Your task to perform on an android device: Add "logitech g502" to the cart on amazon.com, then select checkout. Image 0: 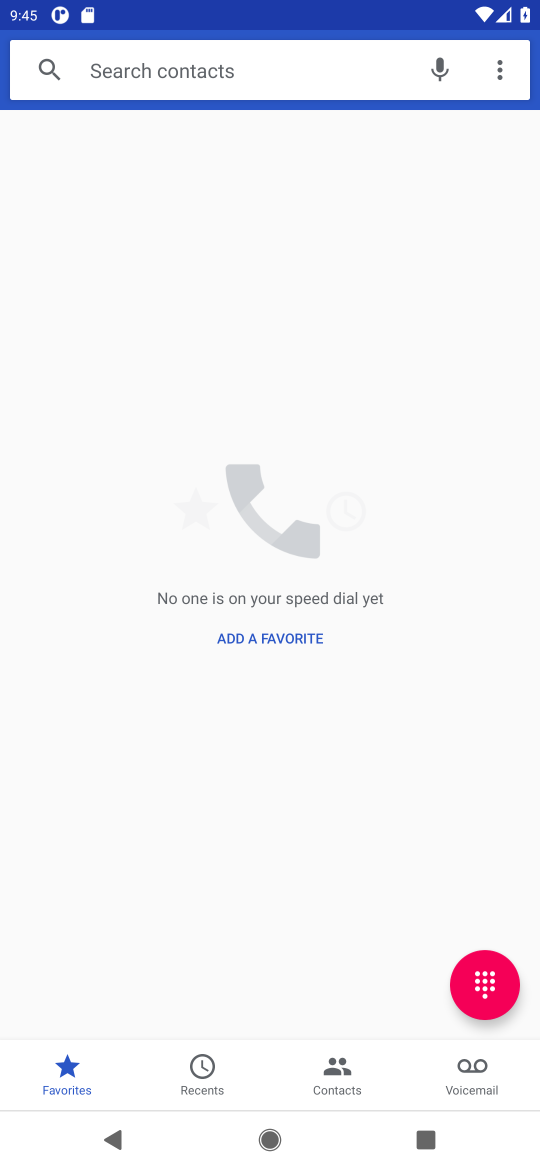
Step 0: press home button
Your task to perform on an android device: Add "logitech g502" to the cart on amazon.com, then select checkout. Image 1: 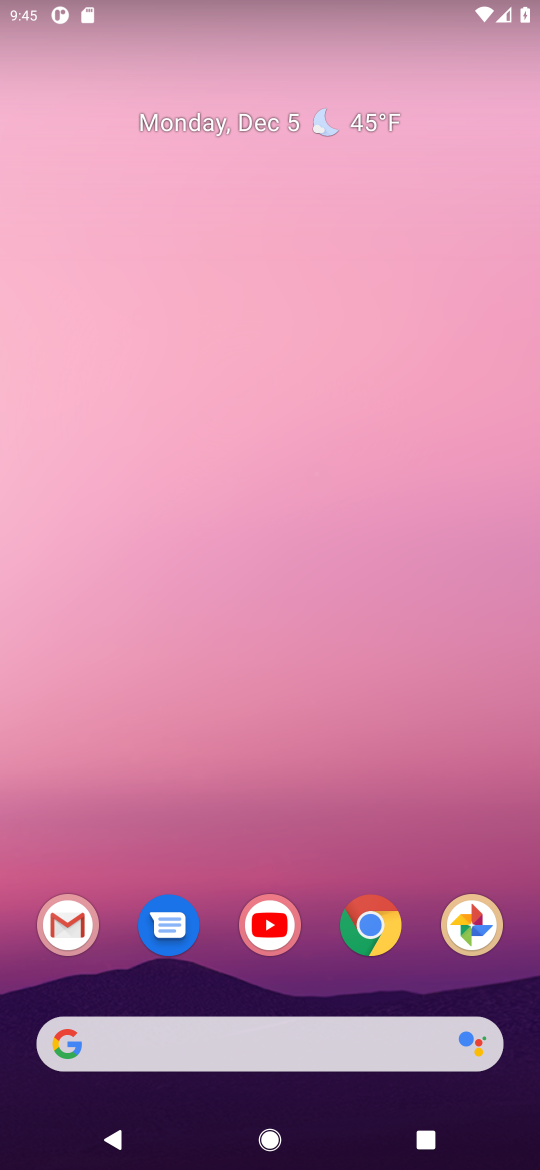
Step 1: click (380, 943)
Your task to perform on an android device: Add "logitech g502" to the cart on amazon.com, then select checkout. Image 2: 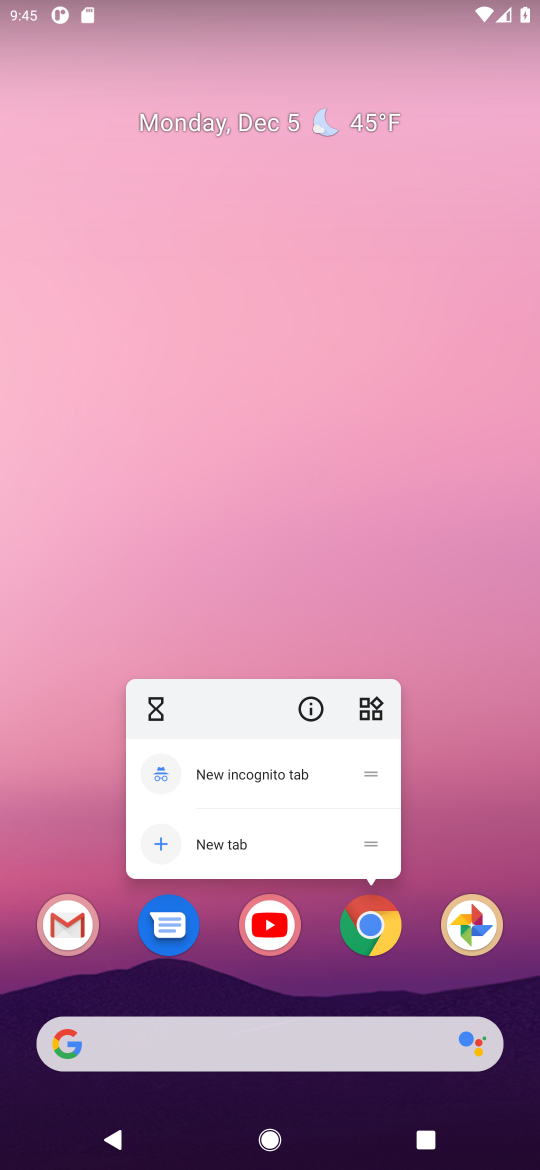
Step 2: click (371, 936)
Your task to perform on an android device: Add "logitech g502" to the cart on amazon.com, then select checkout. Image 3: 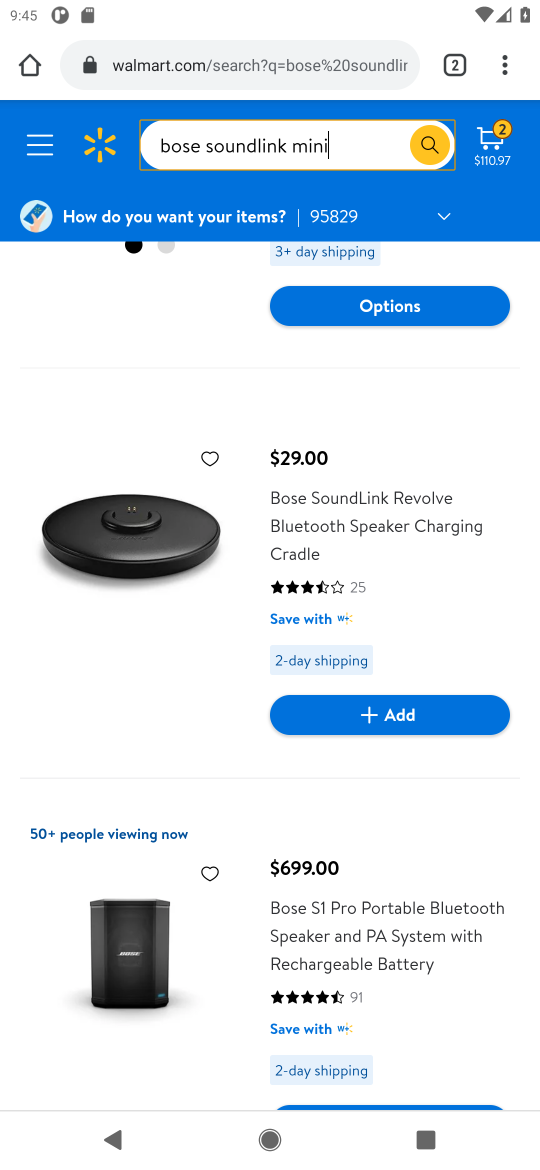
Step 3: click (293, 60)
Your task to perform on an android device: Add "logitech g502" to the cart on amazon.com, then select checkout. Image 4: 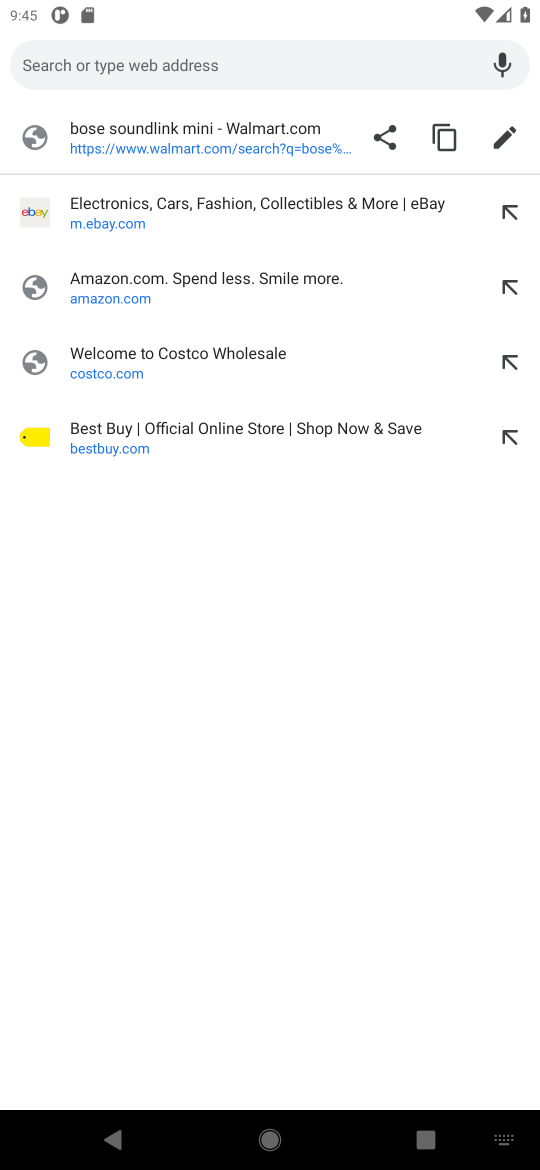
Step 4: click (89, 300)
Your task to perform on an android device: Add "logitech g502" to the cart on amazon.com, then select checkout. Image 5: 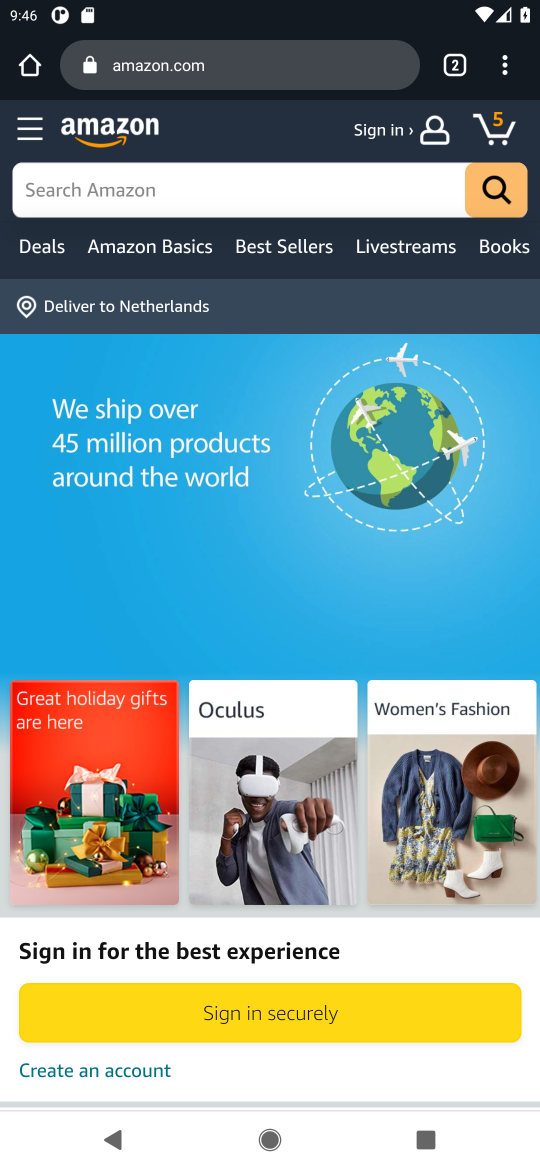
Step 5: click (116, 186)
Your task to perform on an android device: Add "logitech g502" to the cart on amazon.com, then select checkout. Image 6: 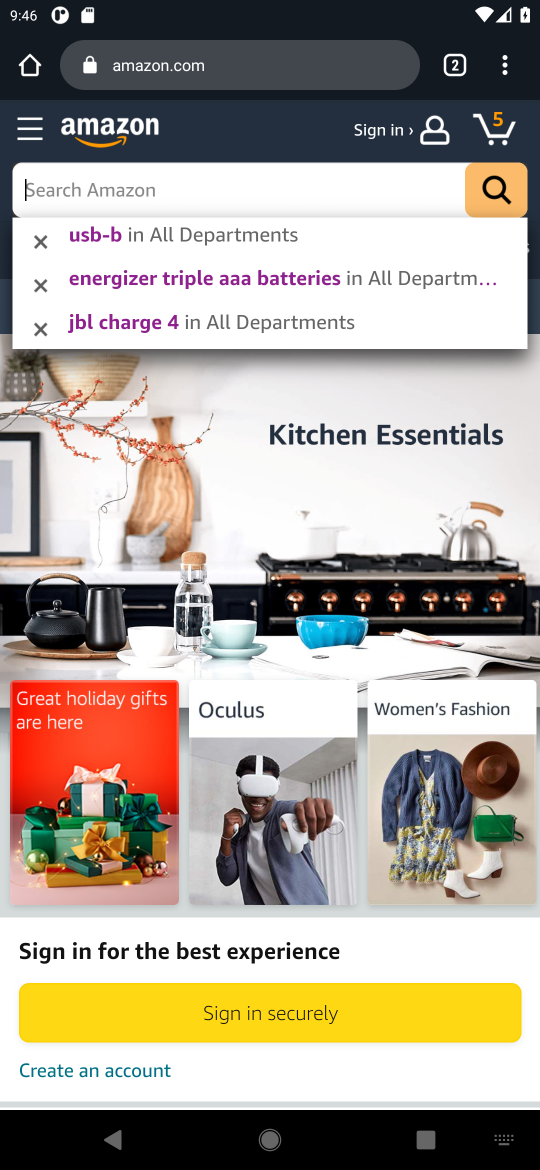
Step 6: type "logitech g502"
Your task to perform on an android device: Add "logitech g502" to the cart on amazon.com, then select checkout. Image 7: 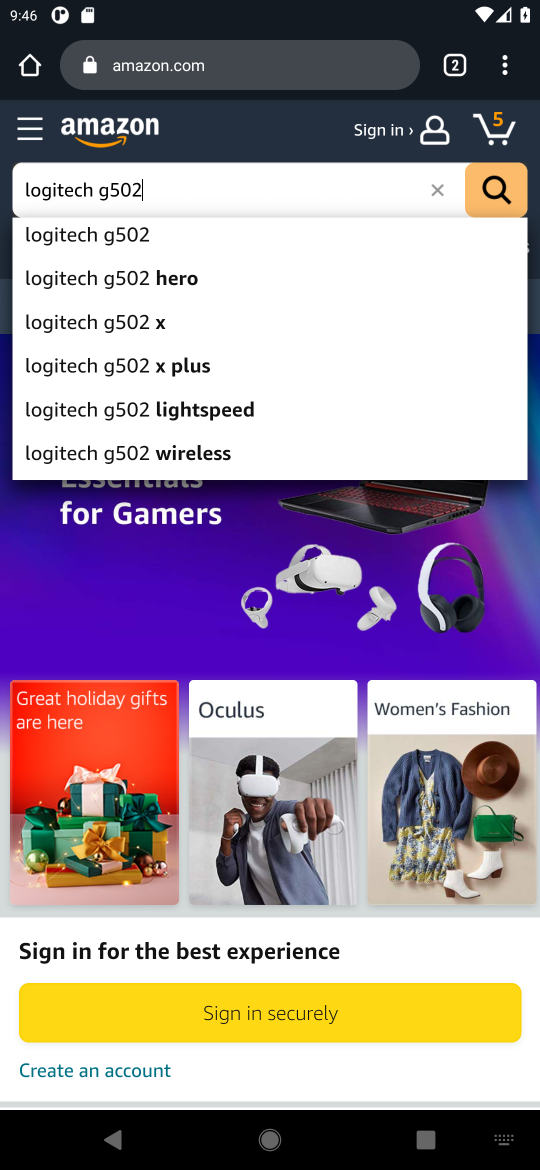
Step 7: click (97, 240)
Your task to perform on an android device: Add "logitech g502" to the cart on amazon.com, then select checkout. Image 8: 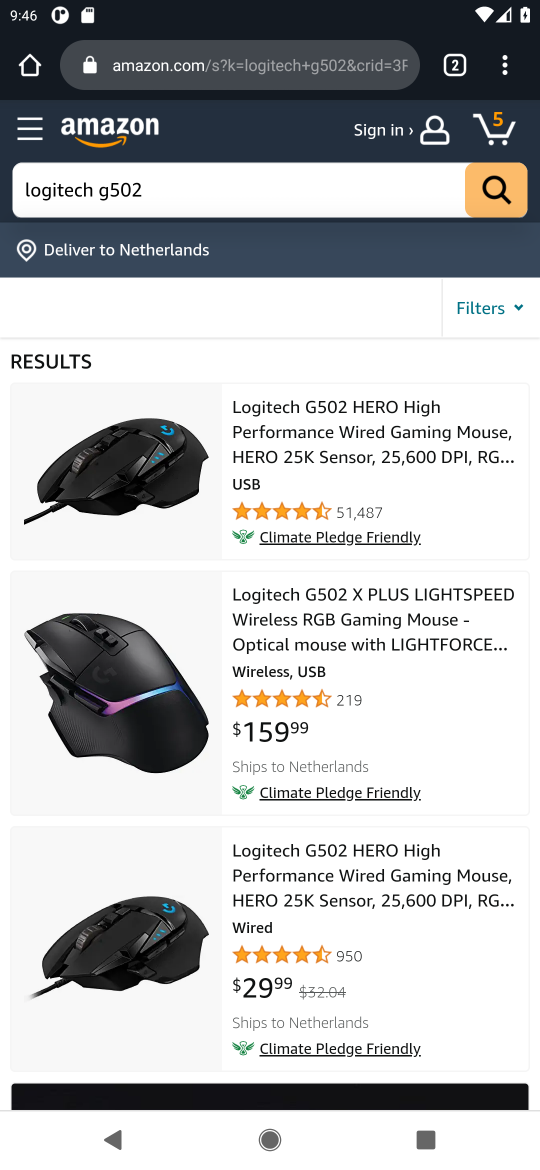
Step 8: click (298, 644)
Your task to perform on an android device: Add "logitech g502" to the cart on amazon.com, then select checkout. Image 9: 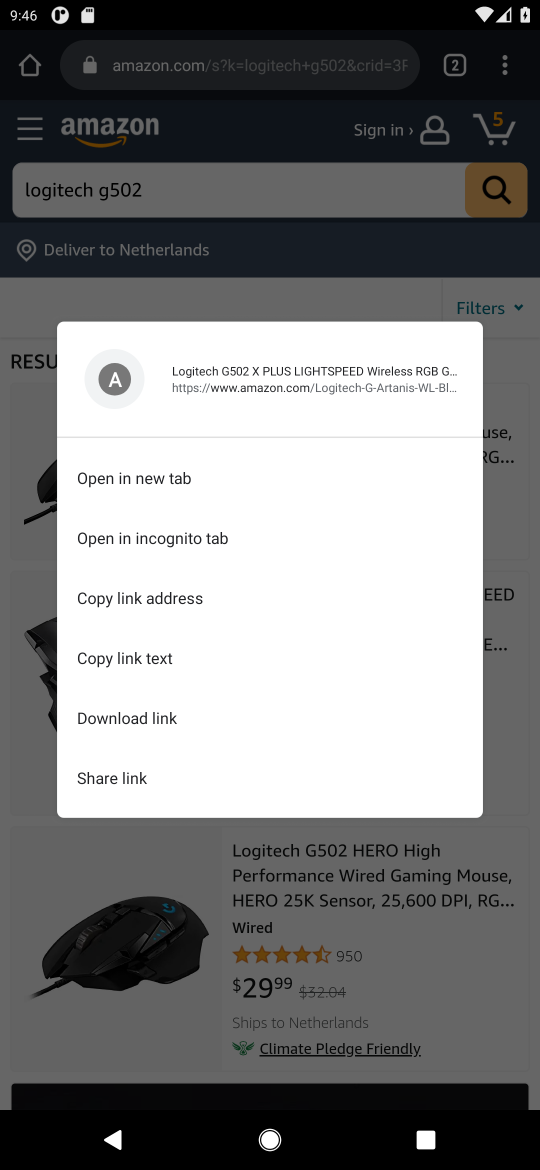
Step 9: click (497, 694)
Your task to perform on an android device: Add "logitech g502" to the cart on amazon.com, then select checkout. Image 10: 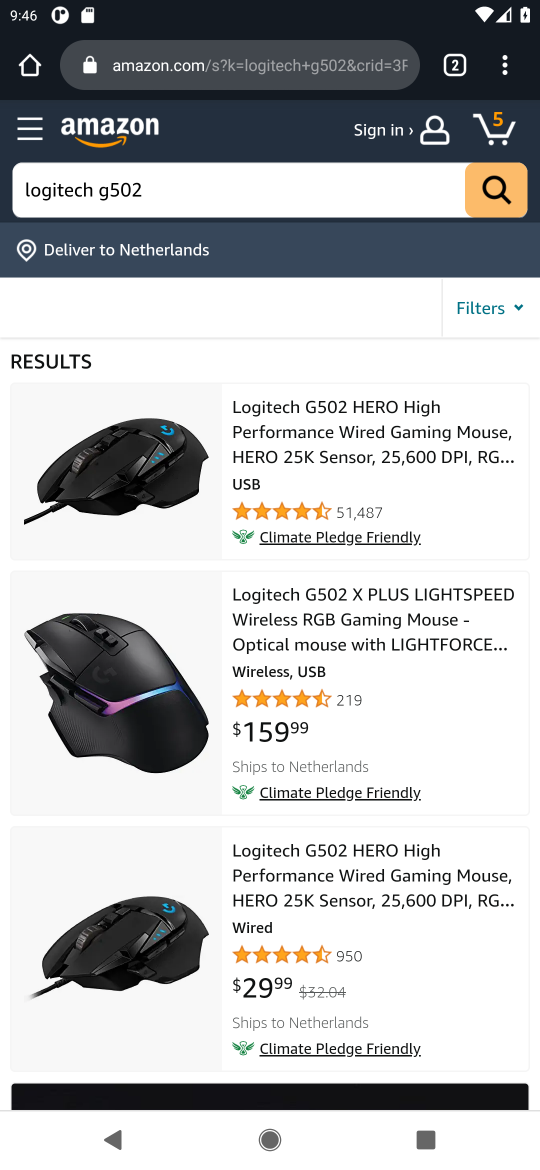
Step 10: click (374, 640)
Your task to perform on an android device: Add "logitech g502" to the cart on amazon.com, then select checkout. Image 11: 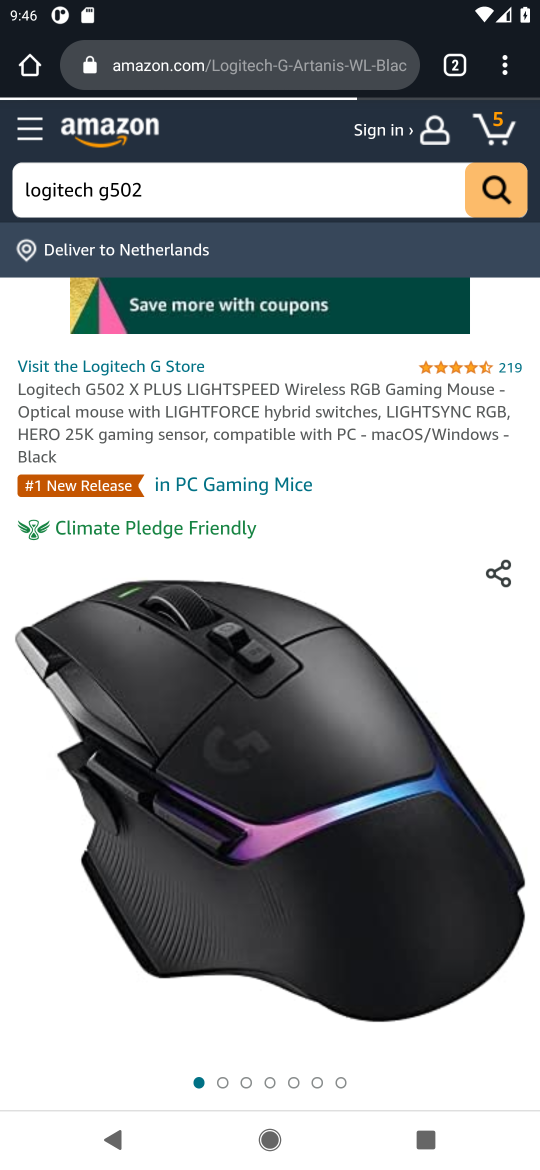
Step 11: drag from (323, 807) to (330, 383)
Your task to perform on an android device: Add "logitech g502" to the cart on amazon.com, then select checkout. Image 12: 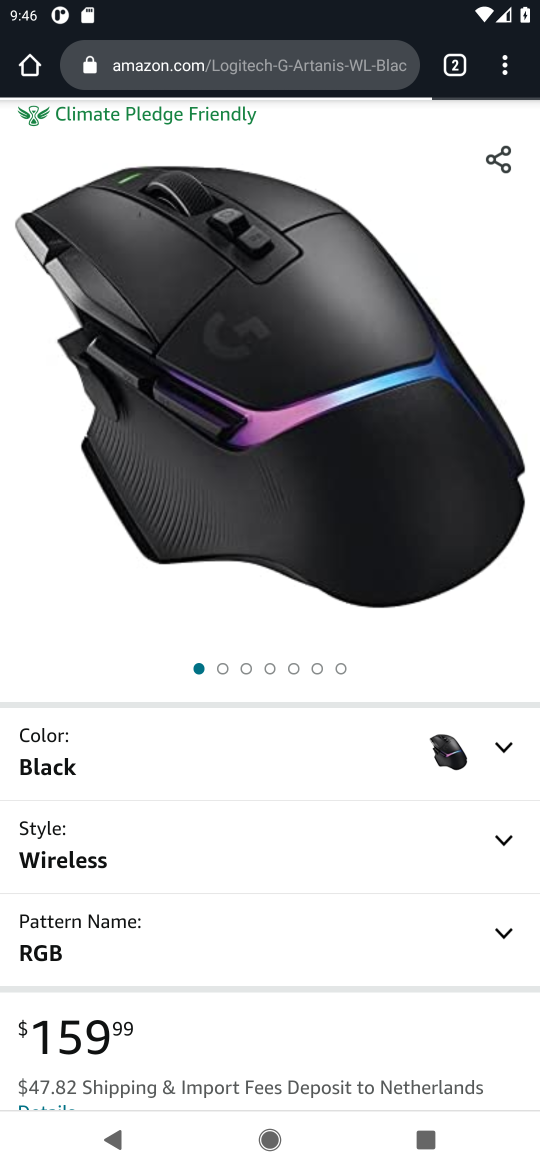
Step 12: drag from (274, 719) to (279, 367)
Your task to perform on an android device: Add "logitech g502" to the cart on amazon.com, then select checkout. Image 13: 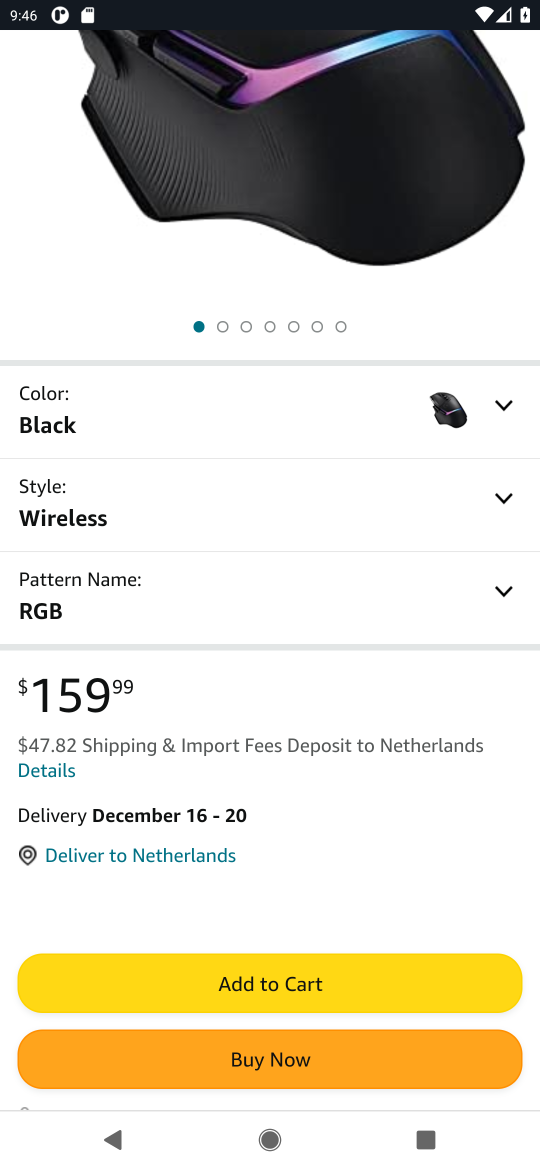
Step 13: click (252, 979)
Your task to perform on an android device: Add "logitech g502" to the cart on amazon.com, then select checkout. Image 14: 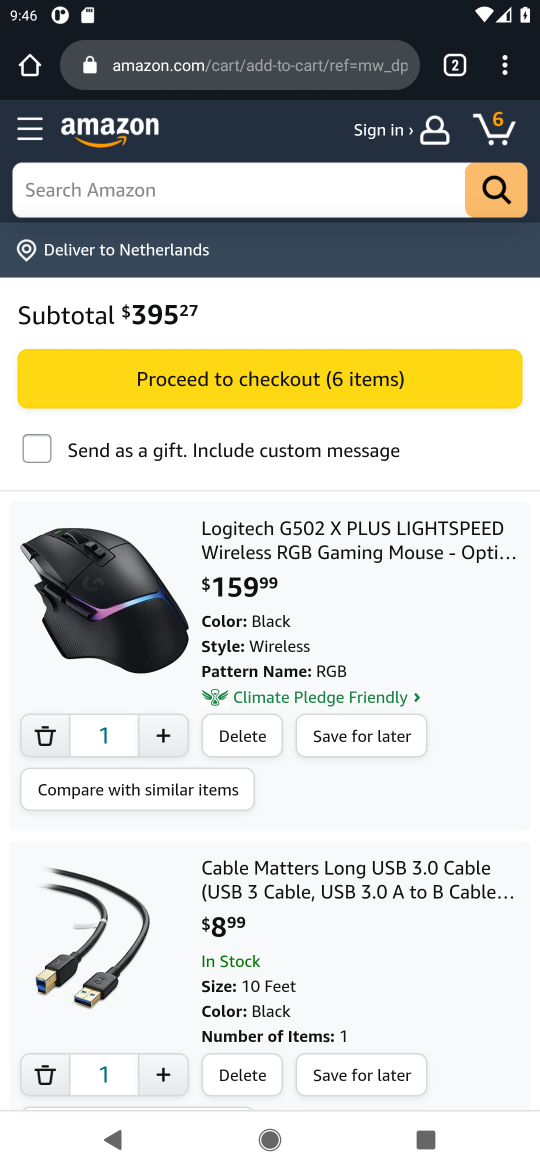
Step 14: click (221, 391)
Your task to perform on an android device: Add "logitech g502" to the cart on amazon.com, then select checkout. Image 15: 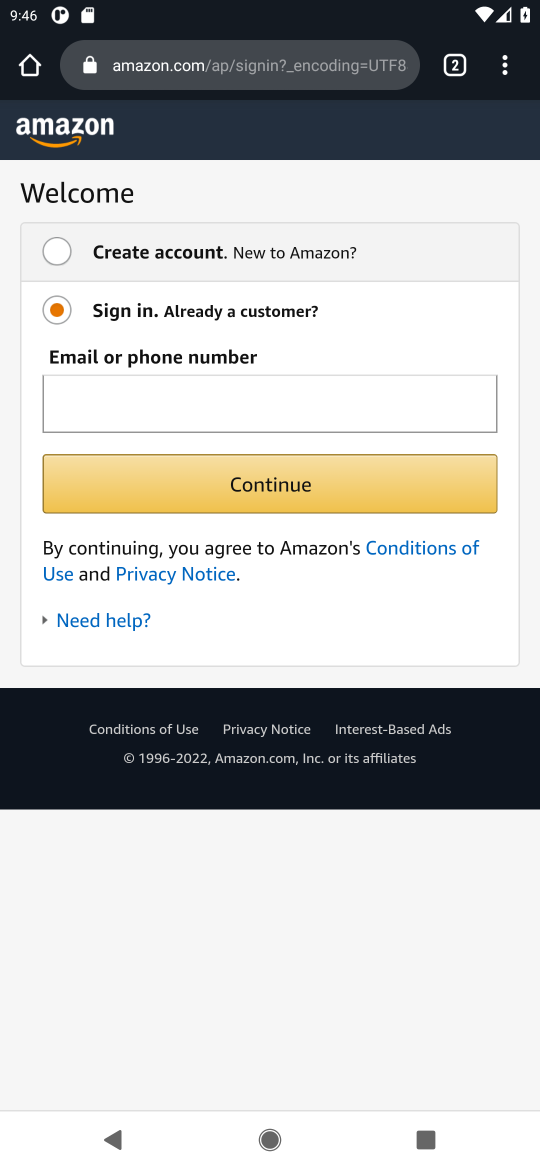
Step 15: task complete